Your task to perform on an android device: install app "Messages" Image 0: 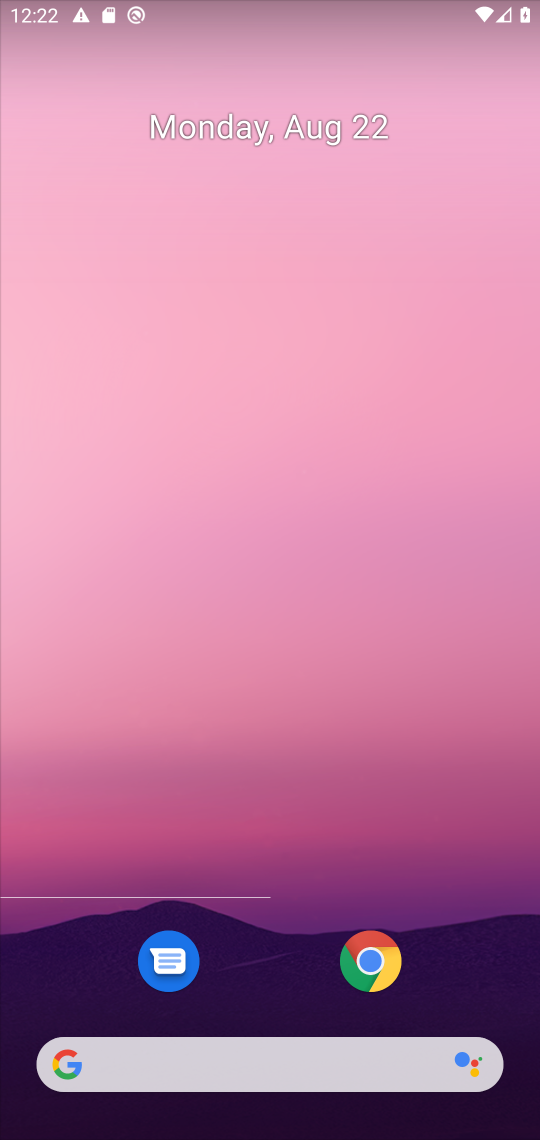
Step 0: press home button
Your task to perform on an android device: install app "Messages" Image 1: 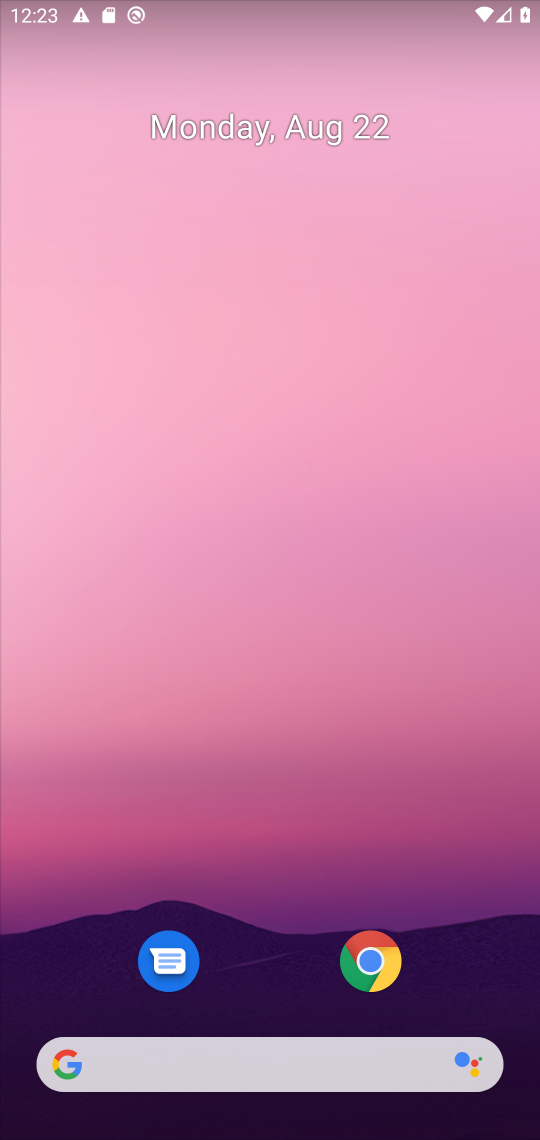
Step 1: drag from (474, 889) to (493, 100)
Your task to perform on an android device: install app "Messages" Image 2: 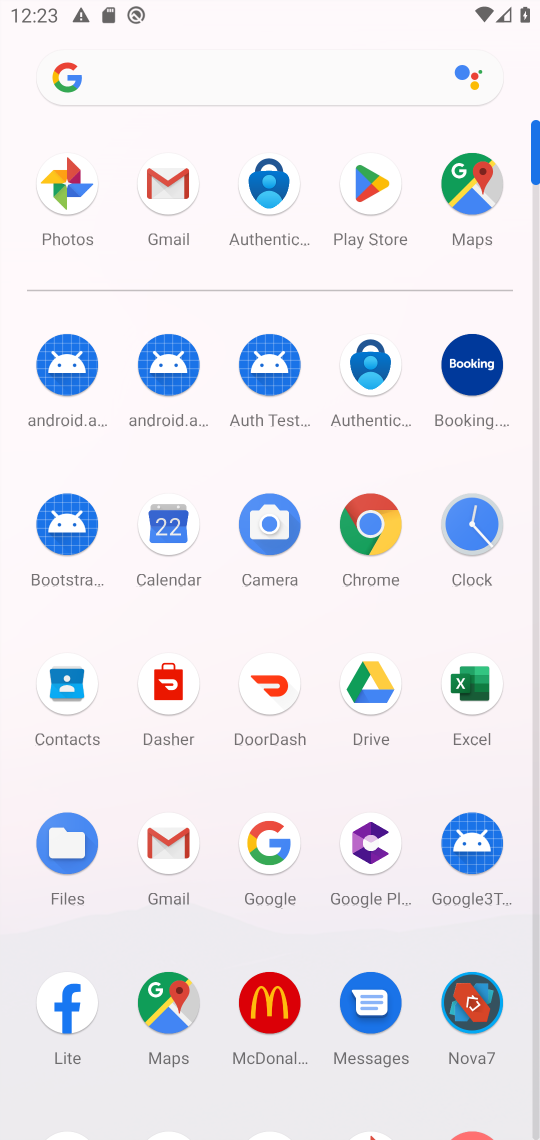
Step 2: click (361, 188)
Your task to perform on an android device: install app "Messages" Image 3: 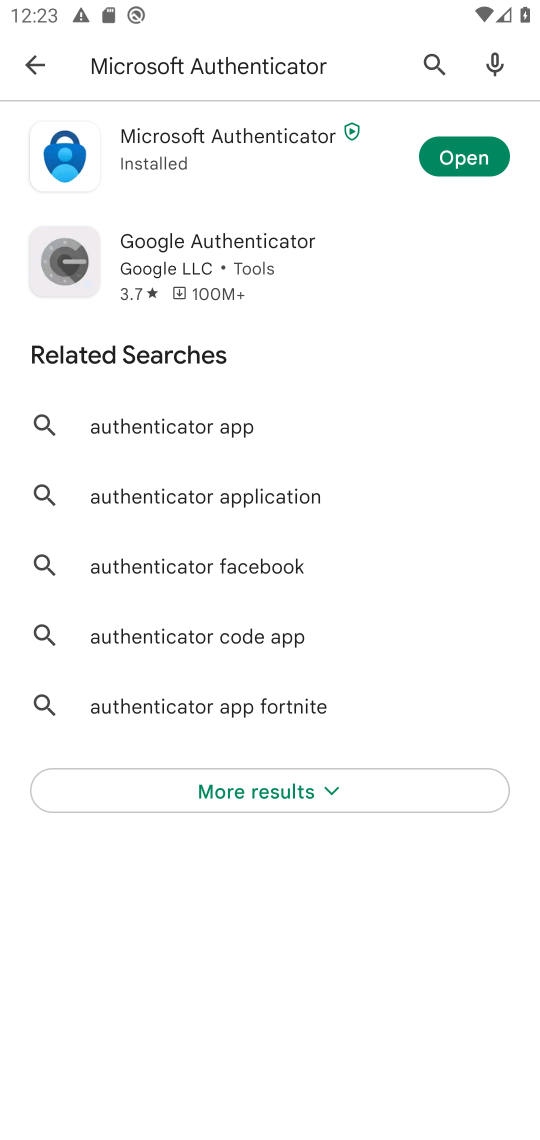
Step 3: press back button
Your task to perform on an android device: install app "Messages" Image 4: 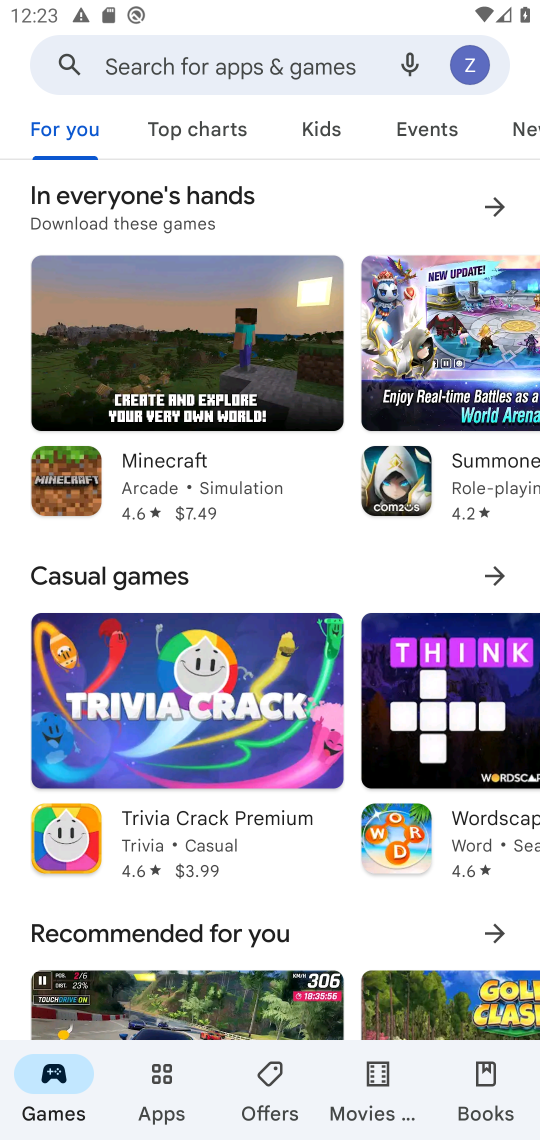
Step 4: click (261, 57)
Your task to perform on an android device: install app "Messages" Image 5: 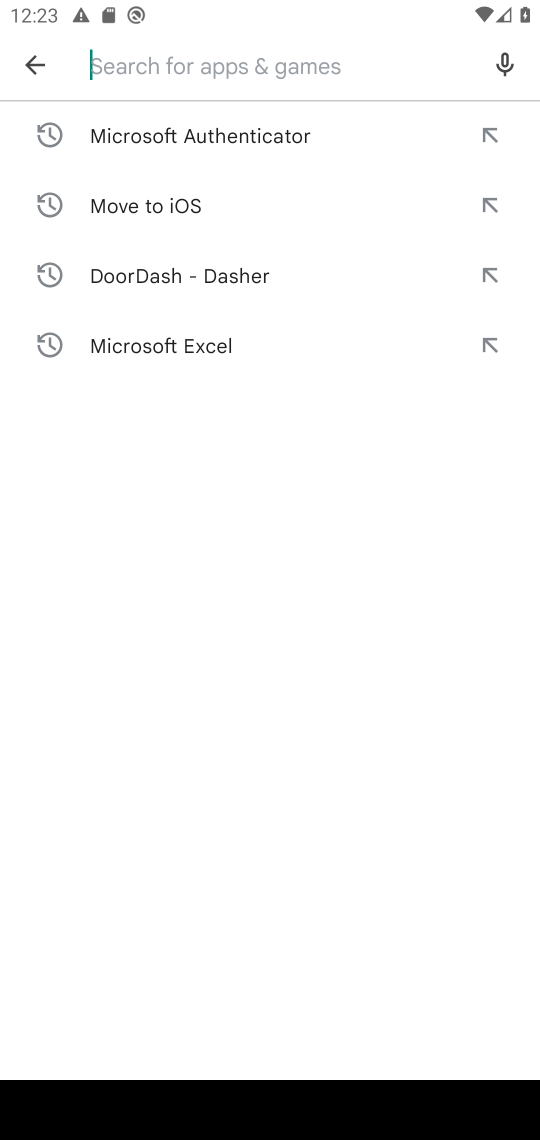
Step 5: press enter
Your task to perform on an android device: install app "Messages" Image 6: 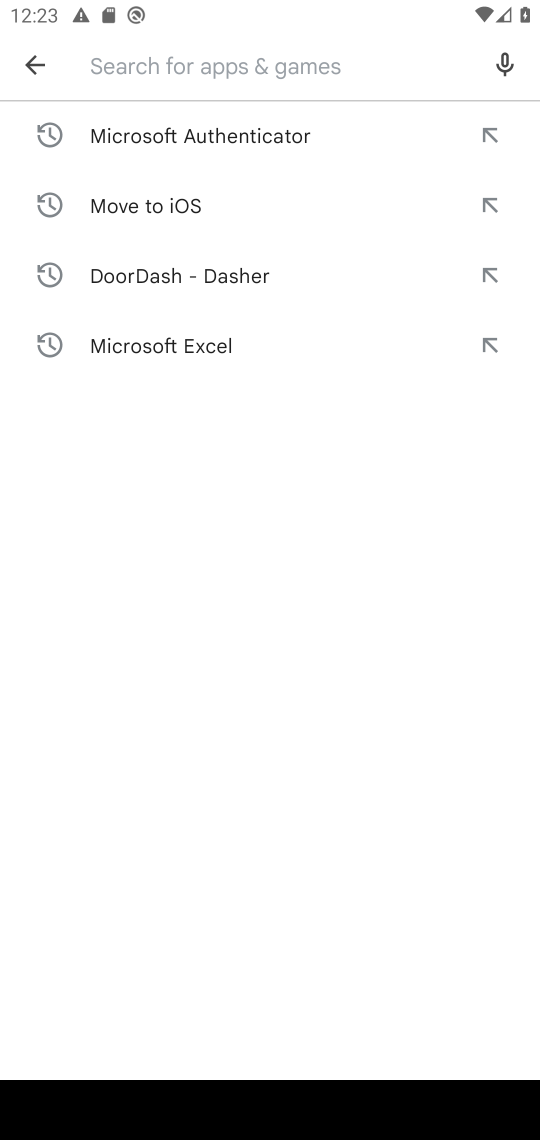
Step 6: type "messages"
Your task to perform on an android device: install app "Messages" Image 7: 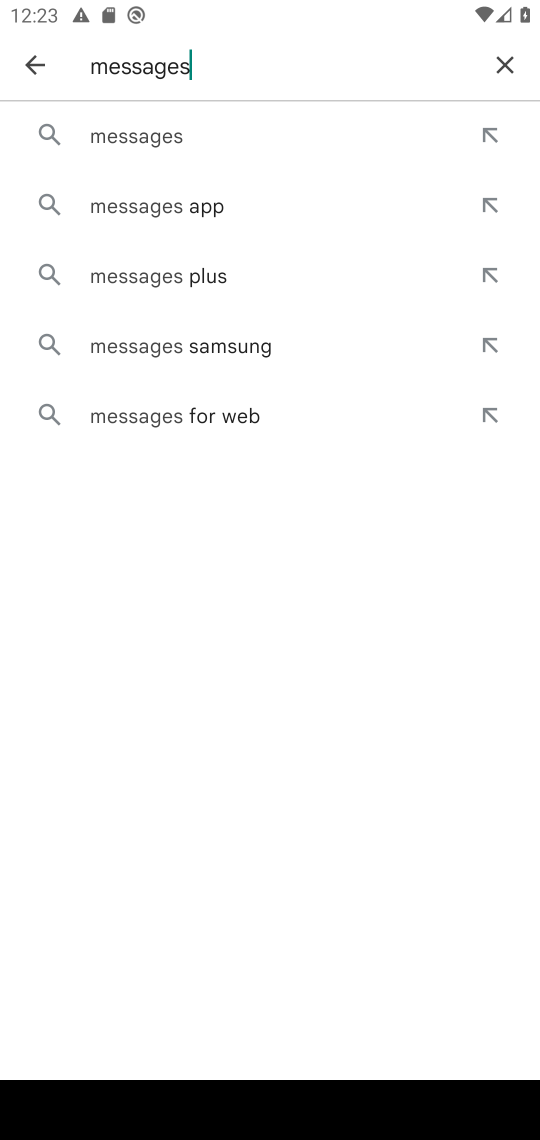
Step 7: click (228, 132)
Your task to perform on an android device: install app "Messages" Image 8: 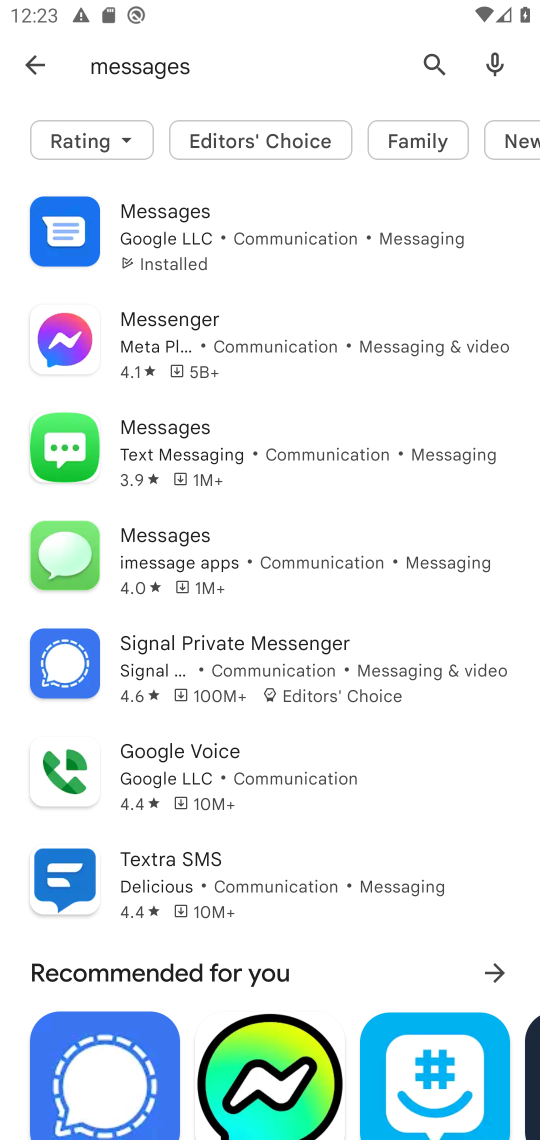
Step 8: click (231, 225)
Your task to perform on an android device: install app "Messages" Image 9: 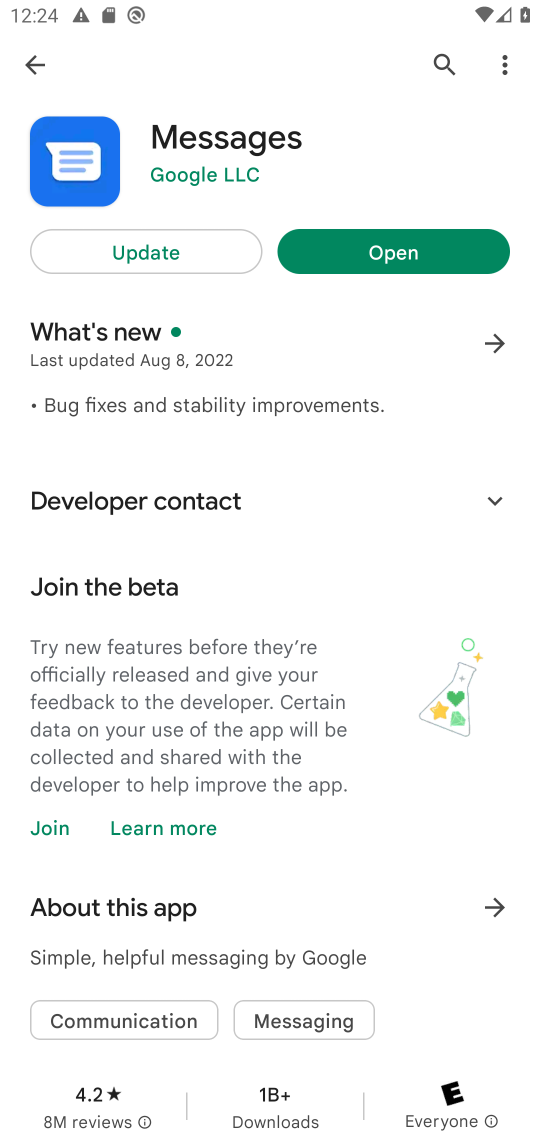
Step 9: task complete